Your task to perform on an android device: clear history in the chrome app Image 0: 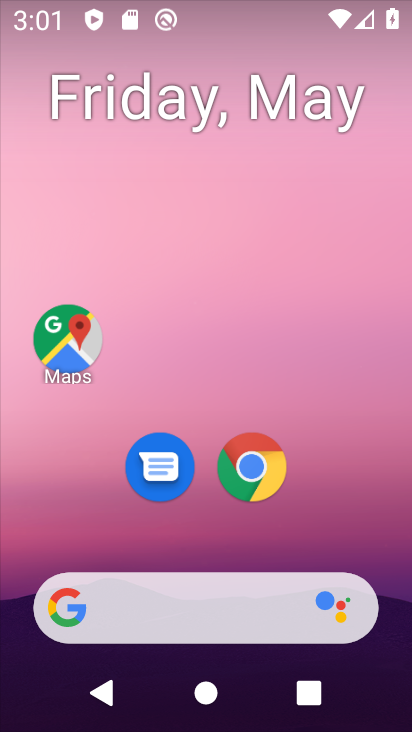
Step 0: drag from (342, 560) to (290, 83)
Your task to perform on an android device: clear history in the chrome app Image 1: 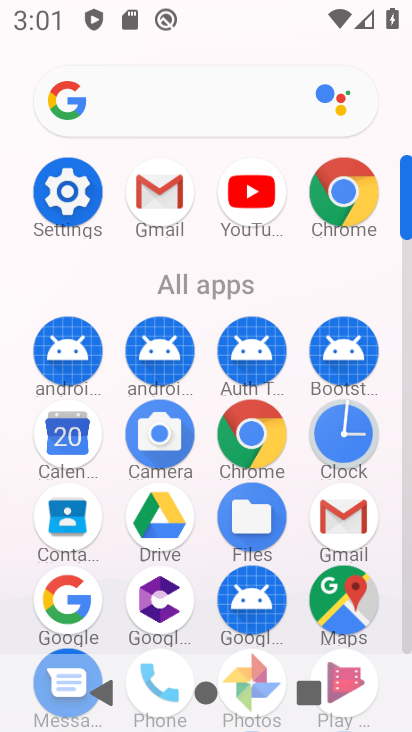
Step 1: click (357, 185)
Your task to perform on an android device: clear history in the chrome app Image 2: 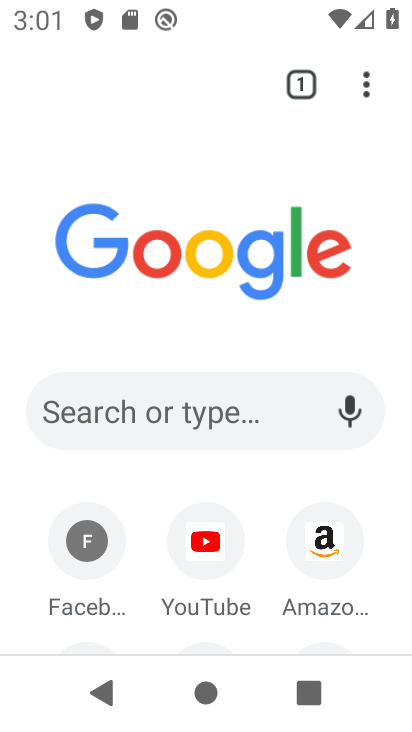
Step 2: task complete